Your task to perform on an android device: check out phone information Image 0: 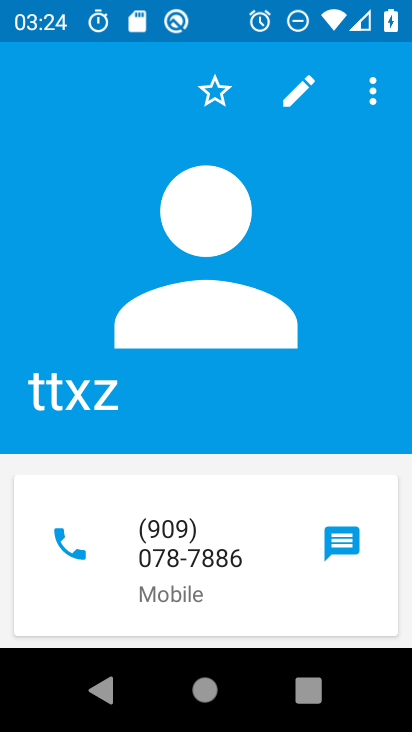
Step 0: press home button
Your task to perform on an android device: check out phone information Image 1: 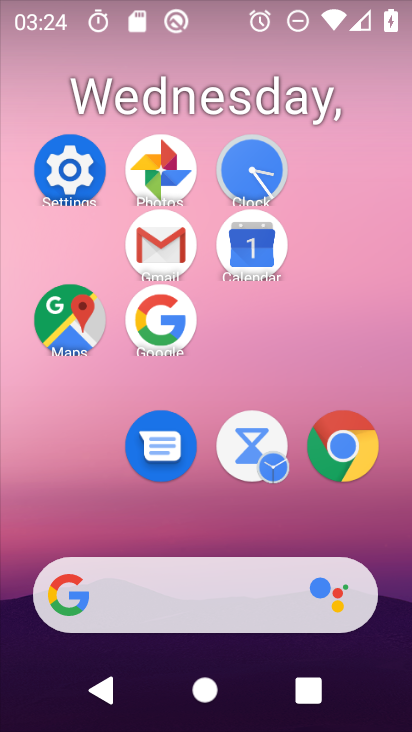
Step 1: click (63, 188)
Your task to perform on an android device: check out phone information Image 2: 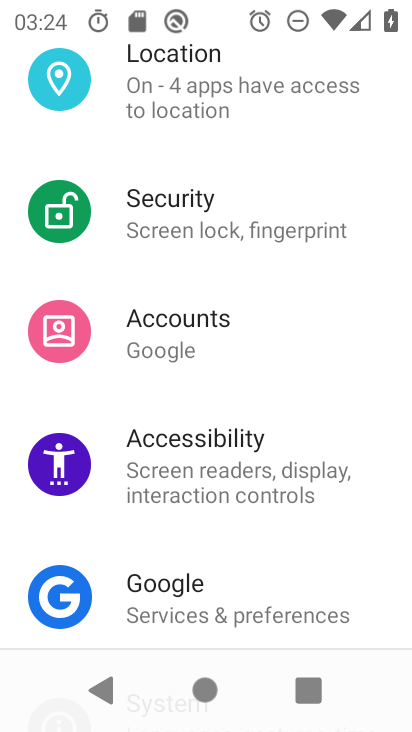
Step 2: drag from (244, 546) to (236, 101)
Your task to perform on an android device: check out phone information Image 3: 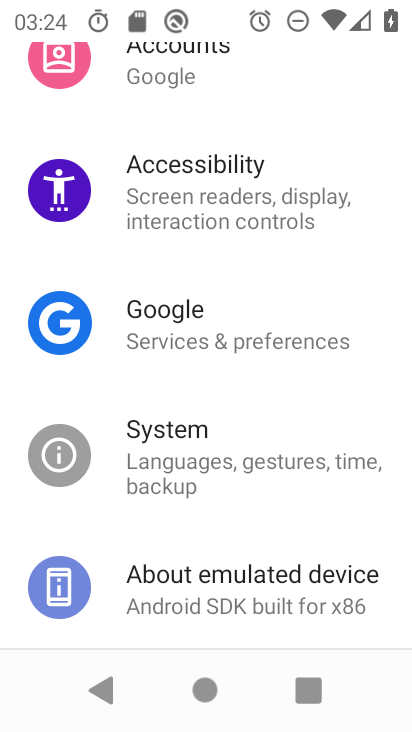
Step 3: click (275, 565)
Your task to perform on an android device: check out phone information Image 4: 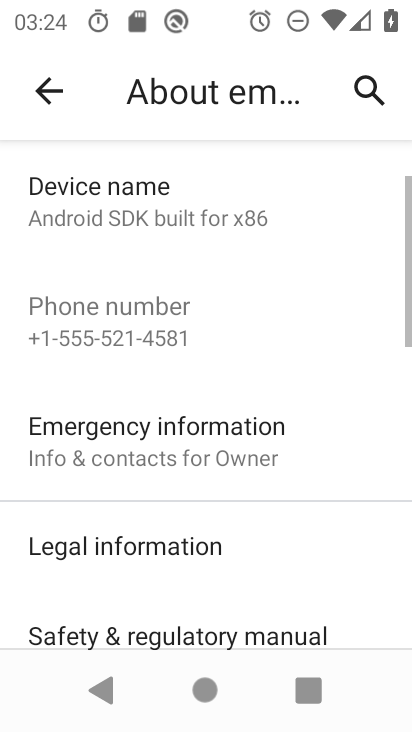
Step 4: drag from (269, 548) to (275, 159)
Your task to perform on an android device: check out phone information Image 5: 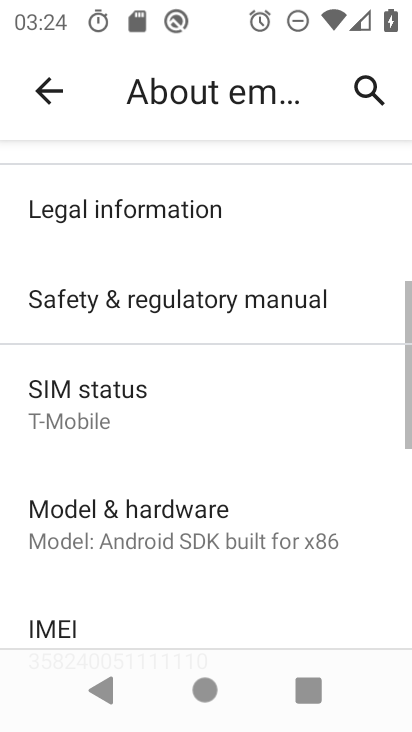
Step 5: click (223, 530)
Your task to perform on an android device: check out phone information Image 6: 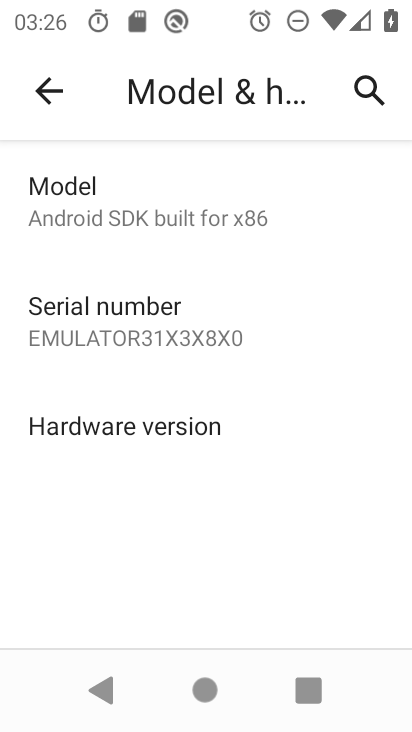
Step 6: task complete